Your task to perform on an android device: Open Maps and search for coffee Image 0: 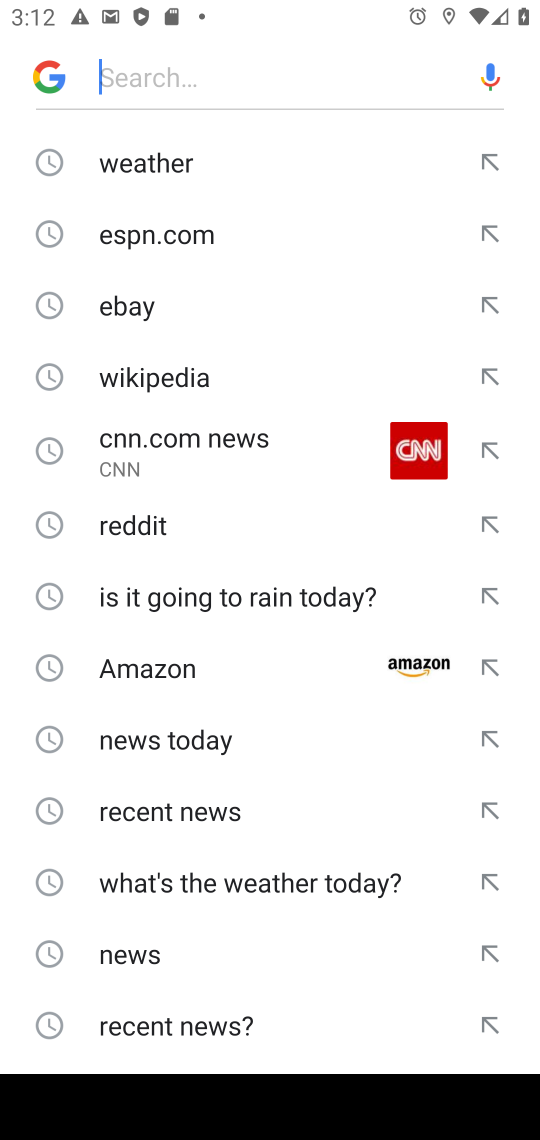
Step 0: press home button
Your task to perform on an android device: Open Maps and search for coffee Image 1: 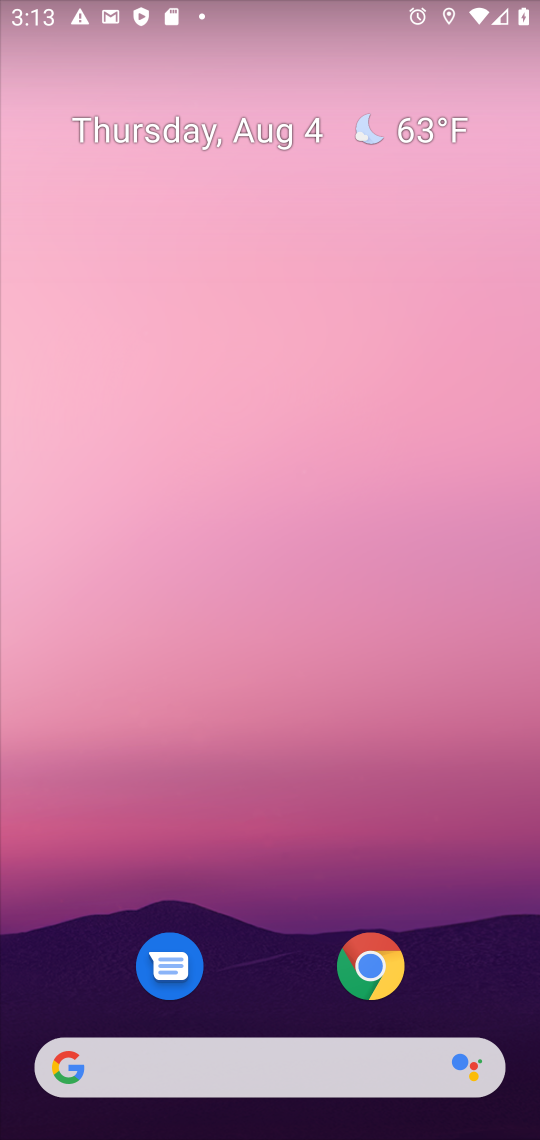
Step 1: drag from (282, 1029) to (310, 382)
Your task to perform on an android device: Open Maps and search for coffee Image 2: 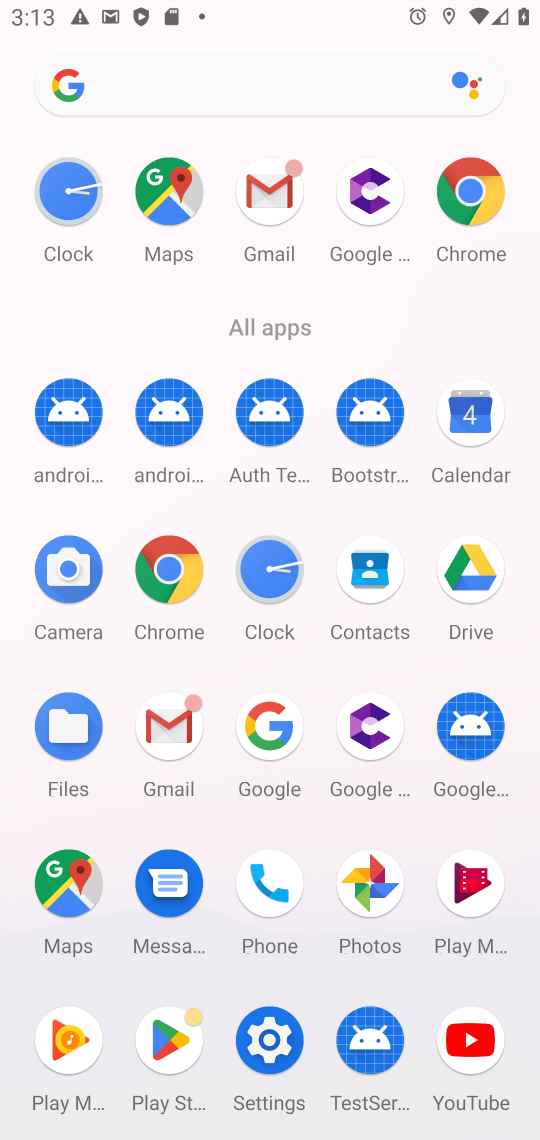
Step 2: click (187, 205)
Your task to perform on an android device: Open Maps and search for coffee Image 3: 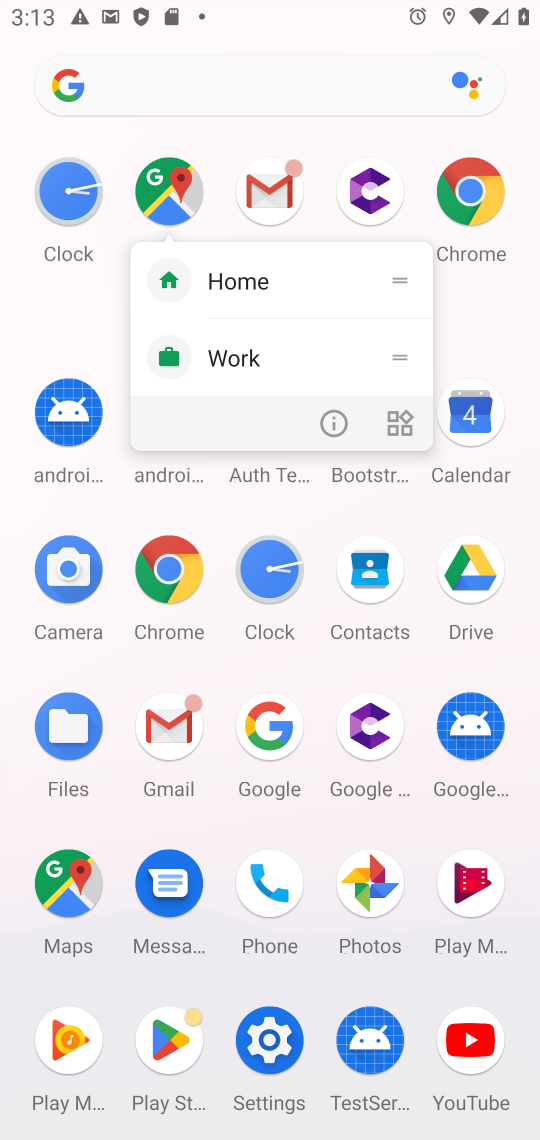
Step 3: click (187, 204)
Your task to perform on an android device: Open Maps and search for coffee Image 4: 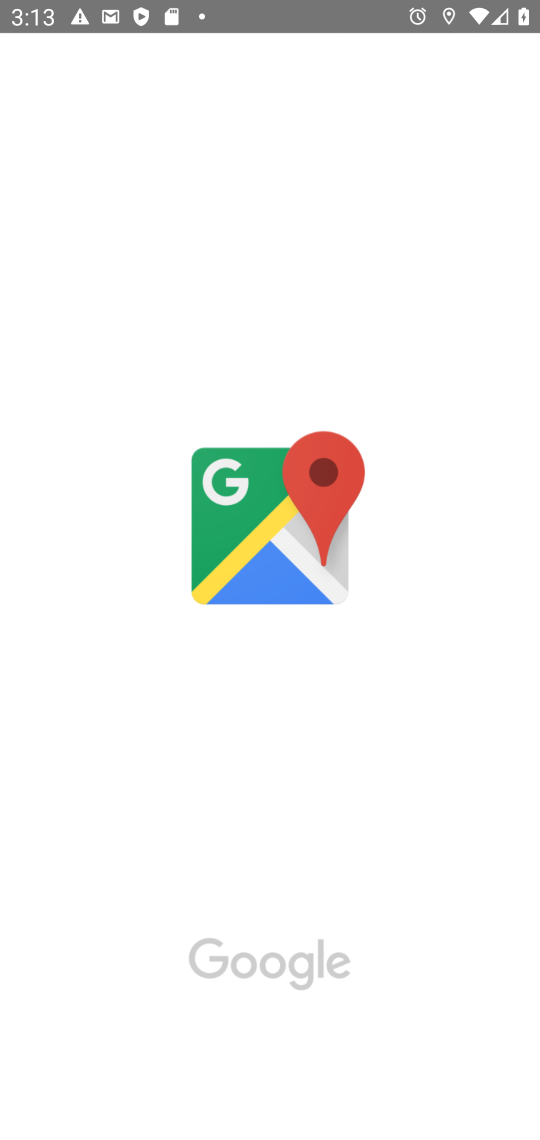
Step 4: press home button
Your task to perform on an android device: Open Maps and search for coffee Image 5: 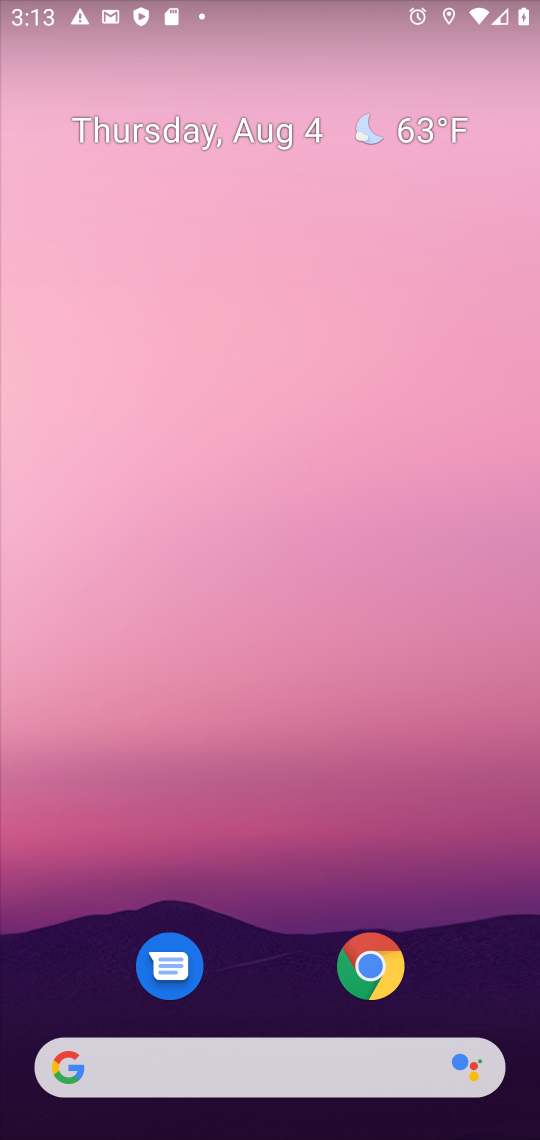
Step 5: drag from (240, 950) to (365, 349)
Your task to perform on an android device: Open Maps and search for coffee Image 6: 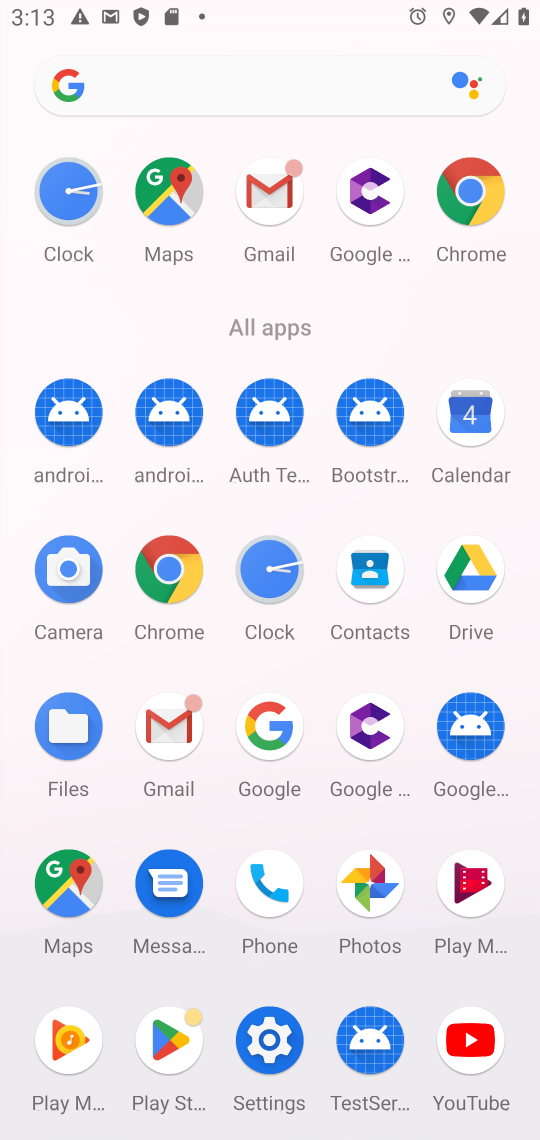
Step 6: click (70, 866)
Your task to perform on an android device: Open Maps and search for coffee Image 7: 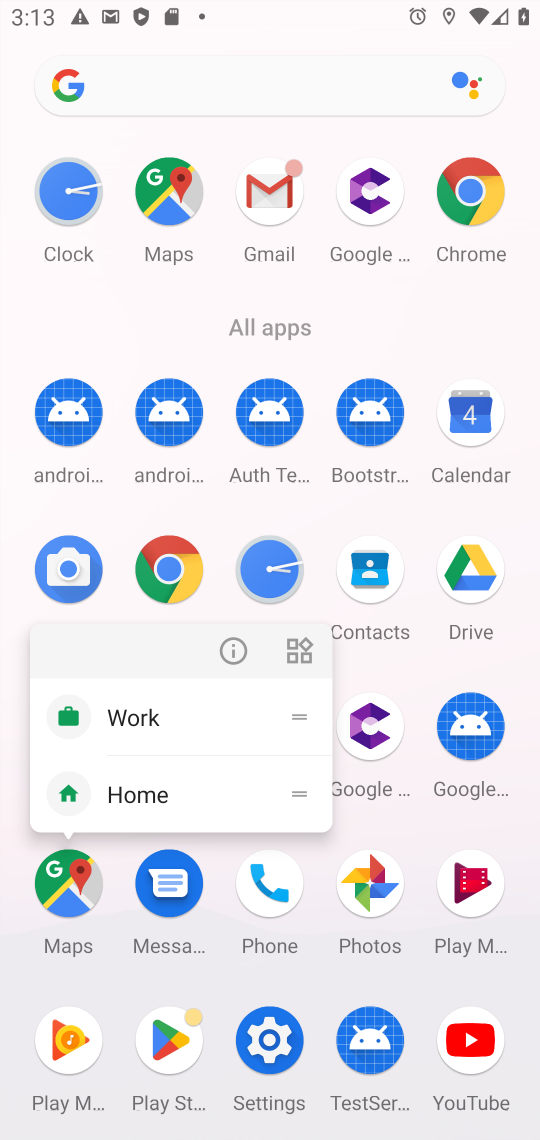
Step 7: click (80, 901)
Your task to perform on an android device: Open Maps and search for coffee Image 8: 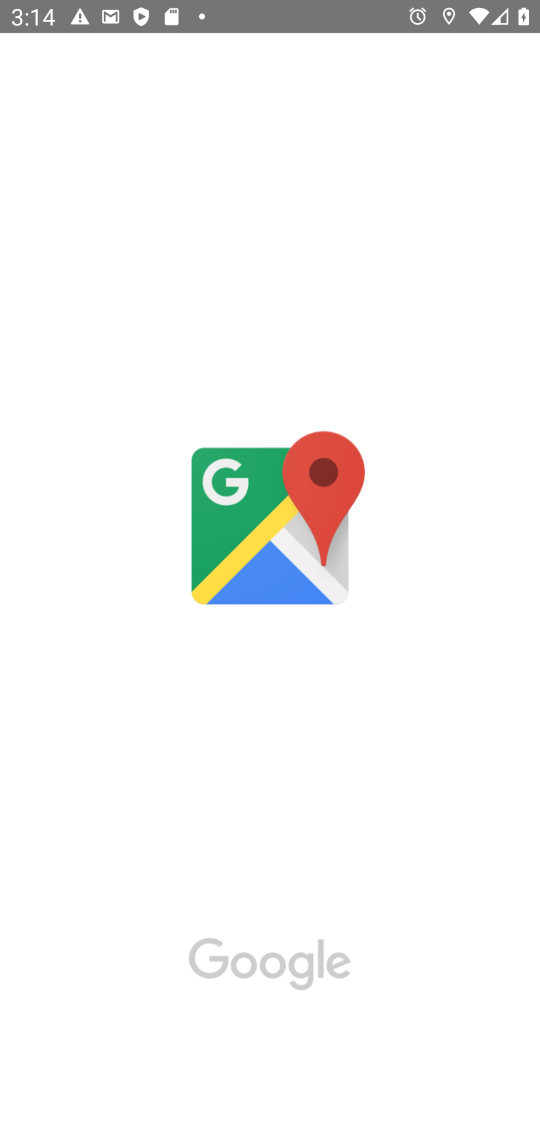
Step 8: task complete